Your task to perform on an android device: Go to Wikipedia Image 0: 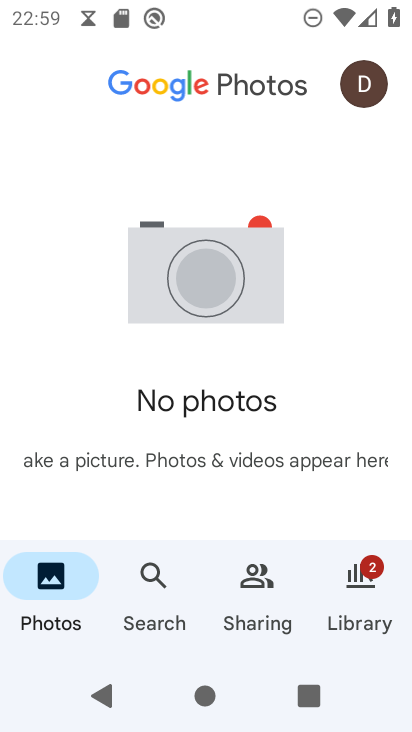
Step 0: press home button
Your task to perform on an android device: Go to Wikipedia Image 1: 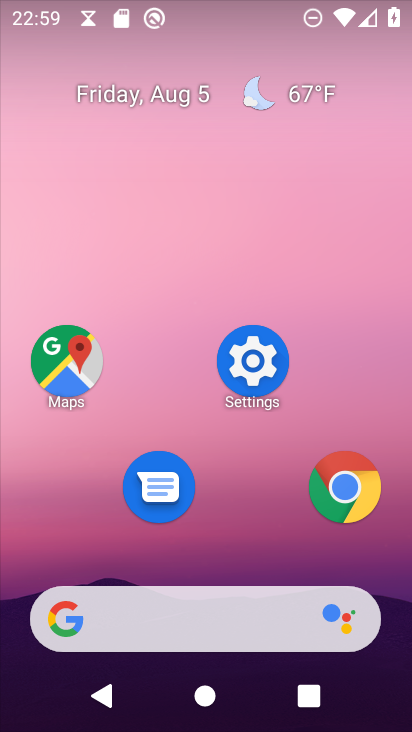
Step 1: click (349, 487)
Your task to perform on an android device: Go to Wikipedia Image 2: 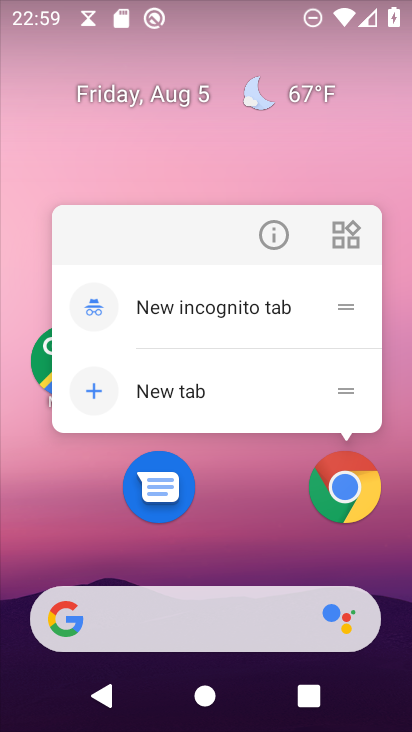
Step 2: click (349, 494)
Your task to perform on an android device: Go to Wikipedia Image 3: 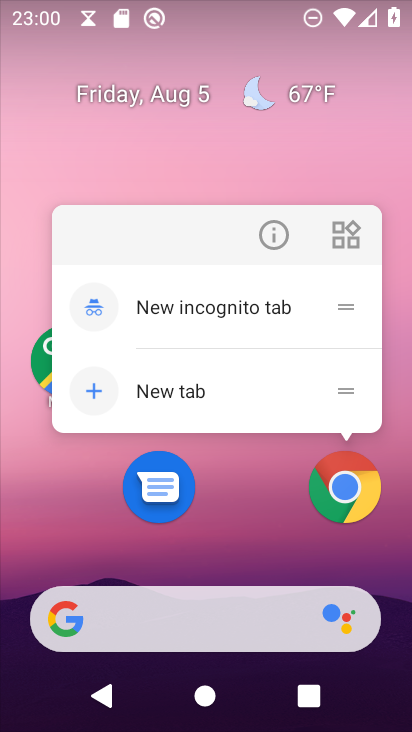
Step 3: click (349, 494)
Your task to perform on an android device: Go to Wikipedia Image 4: 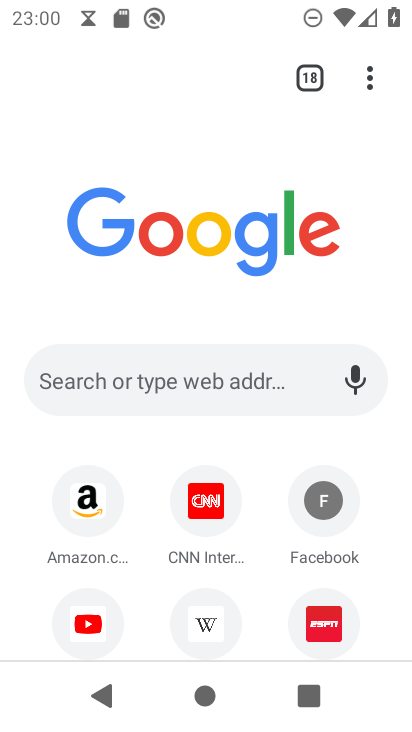
Step 4: drag from (270, 435) to (300, 218)
Your task to perform on an android device: Go to Wikipedia Image 5: 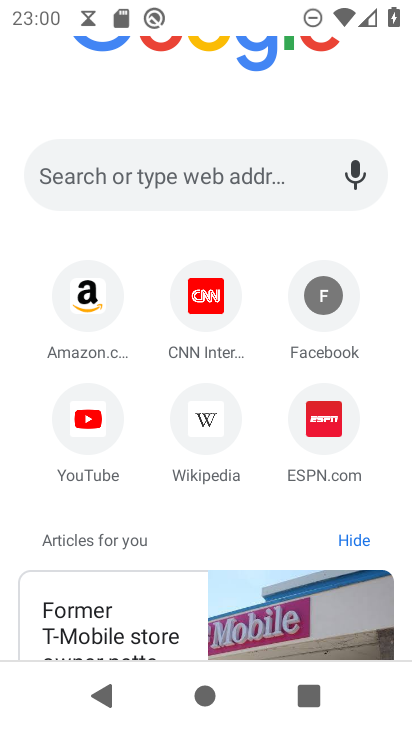
Step 5: click (204, 422)
Your task to perform on an android device: Go to Wikipedia Image 6: 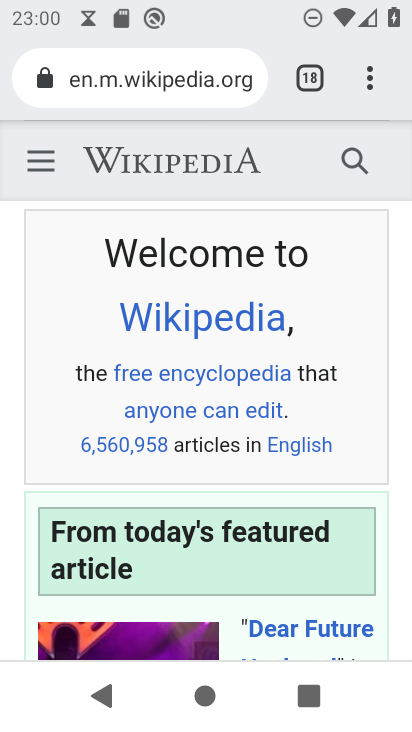
Step 6: task complete